Your task to perform on an android device: turn on javascript in the chrome app Image 0: 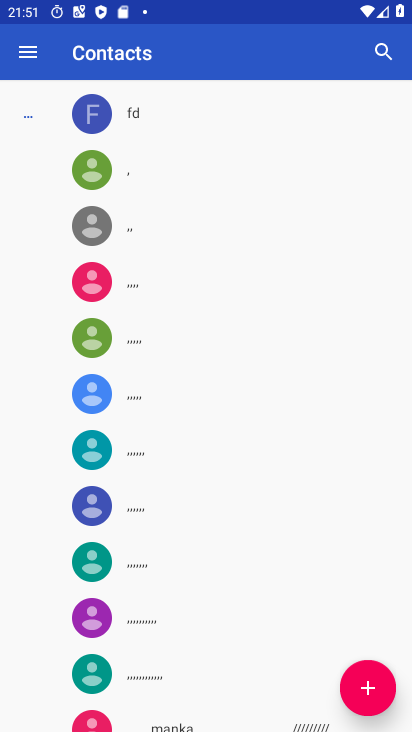
Step 0: press home button
Your task to perform on an android device: turn on javascript in the chrome app Image 1: 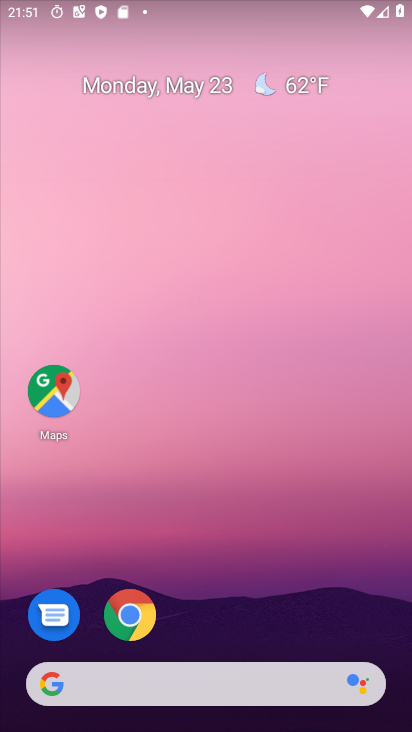
Step 1: click (138, 615)
Your task to perform on an android device: turn on javascript in the chrome app Image 2: 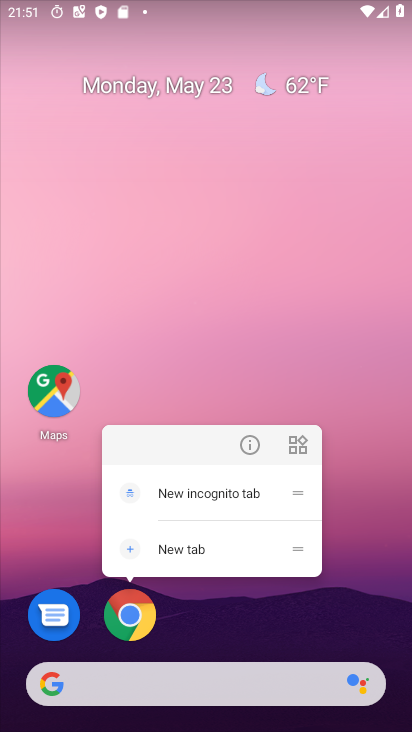
Step 2: click (138, 615)
Your task to perform on an android device: turn on javascript in the chrome app Image 3: 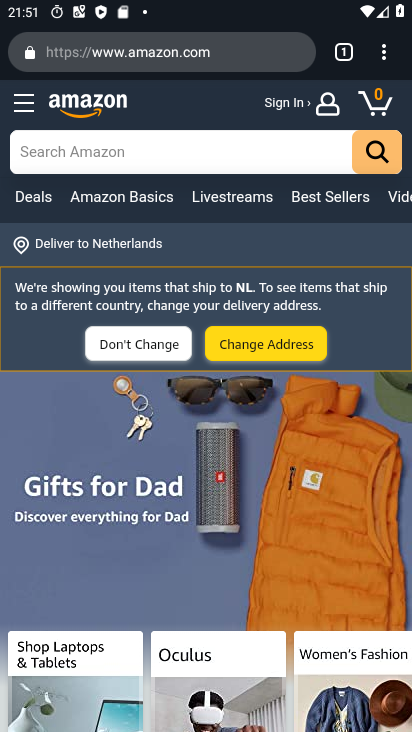
Step 3: click (380, 53)
Your task to perform on an android device: turn on javascript in the chrome app Image 4: 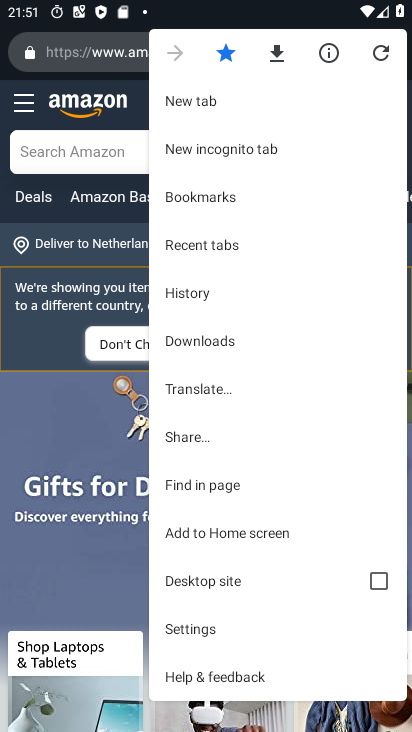
Step 4: click (209, 629)
Your task to perform on an android device: turn on javascript in the chrome app Image 5: 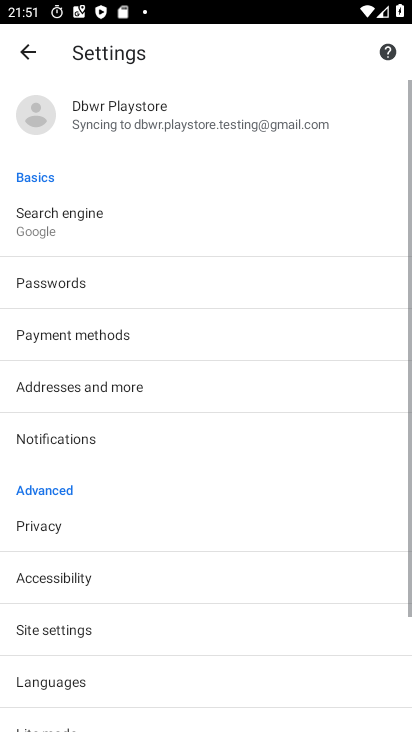
Step 5: click (209, 629)
Your task to perform on an android device: turn on javascript in the chrome app Image 6: 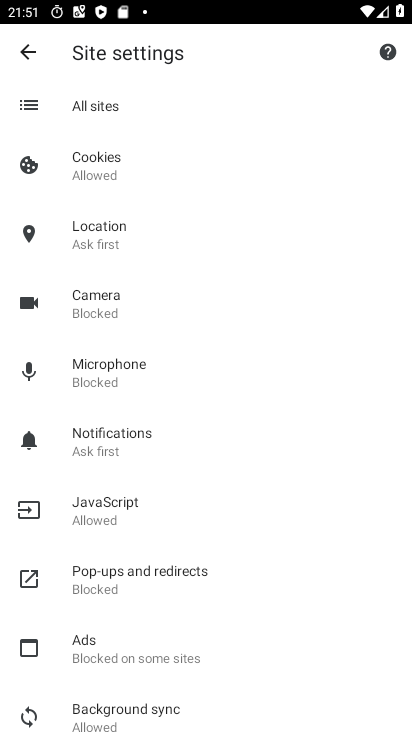
Step 6: click (156, 514)
Your task to perform on an android device: turn on javascript in the chrome app Image 7: 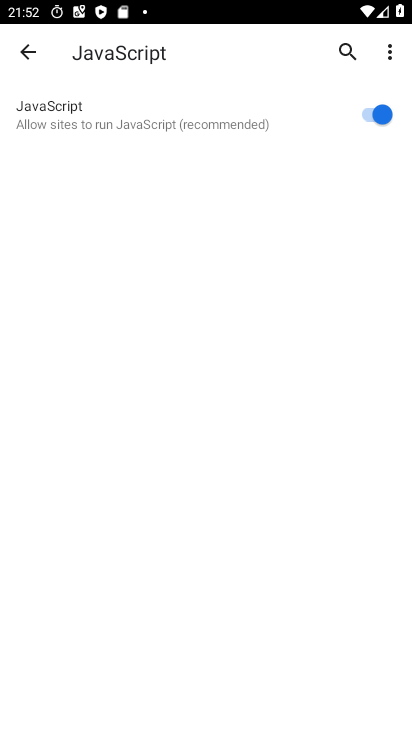
Step 7: task complete